Your task to perform on an android device: change the upload size in google photos Image 0: 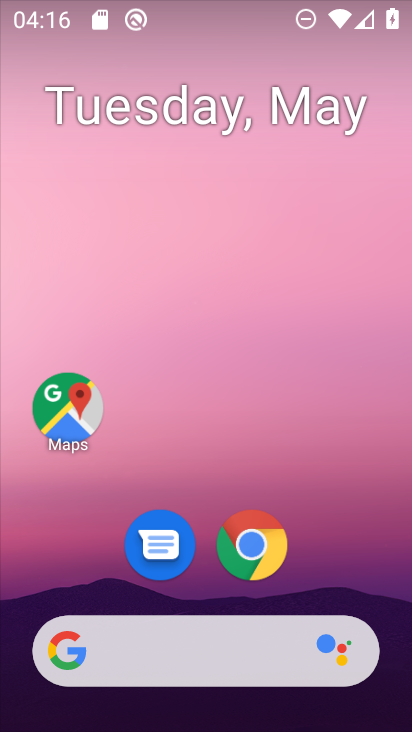
Step 0: drag from (380, 608) to (271, 20)
Your task to perform on an android device: change the upload size in google photos Image 1: 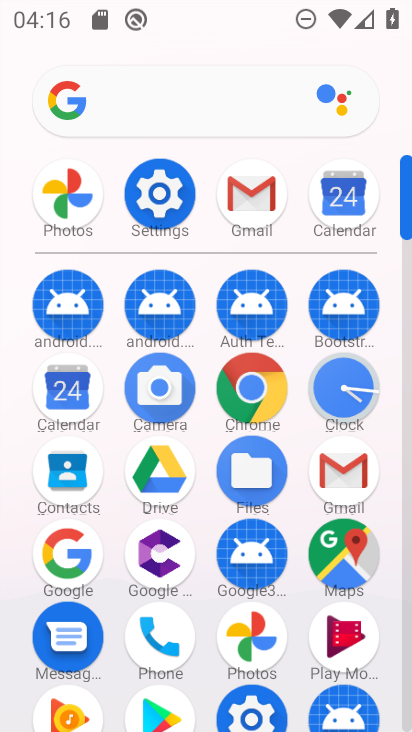
Step 1: click (404, 690)
Your task to perform on an android device: change the upload size in google photos Image 2: 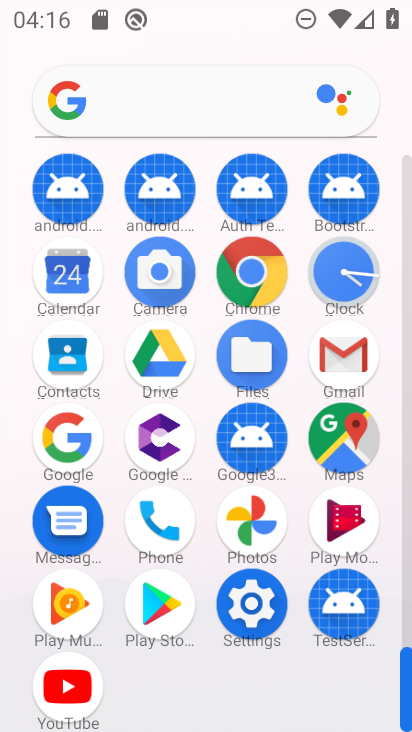
Step 2: click (251, 514)
Your task to perform on an android device: change the upload size in google photos Image 3: 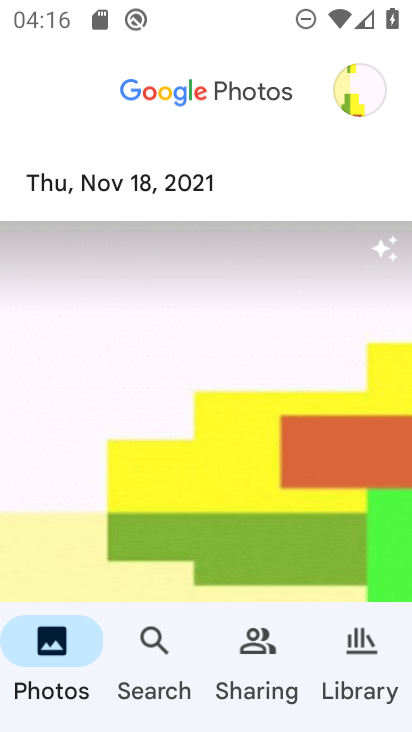
Step 3: click (362, 86)
Your task to perform on an android device: change the upload size in google photos Image 4: 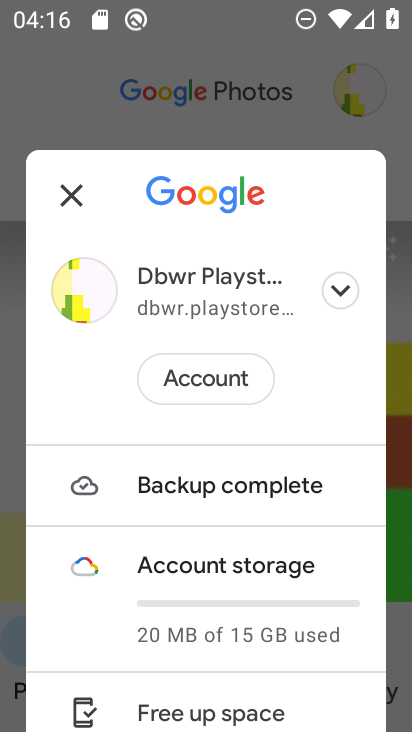
Step 4: drag from (275, 573) to (243, 164)
Your task to perform on an android device: change the upload size in google photos Image 5: 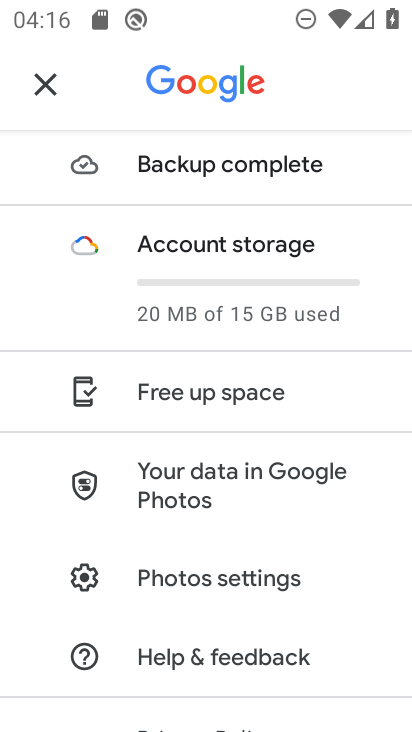
Step 5: click (176, 586)
Your task to perform on an android device: change the upload size in google photos Image 6: 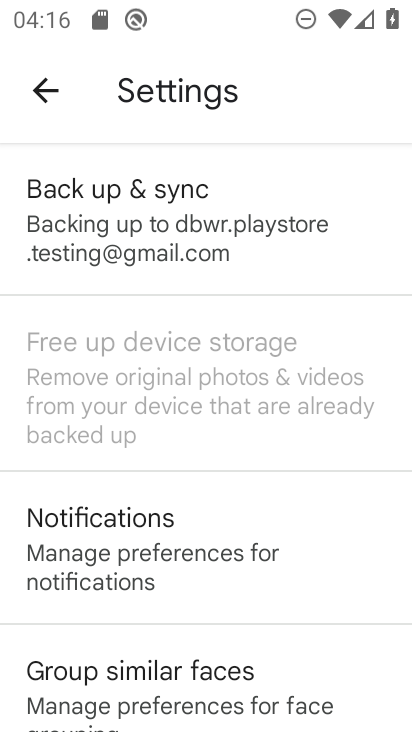
Step 6: click (133, 214)
Your task to perform on an android device: change the upload size in google photos Image 7: 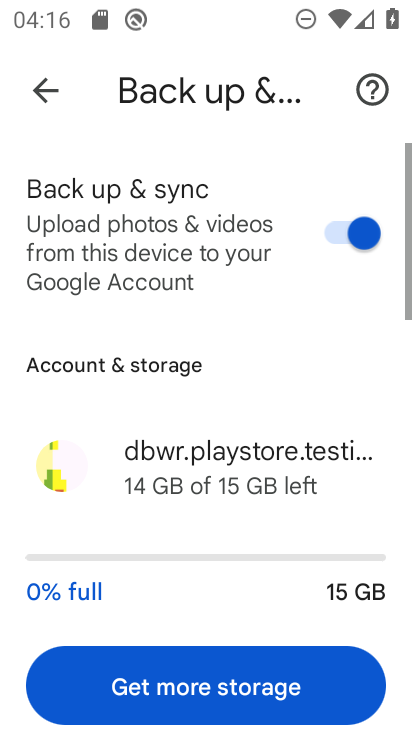
Step 7: drag from (192, 621) to (217, 93)
Your task to perform on an android device: change the upload size in google photos Image 8: 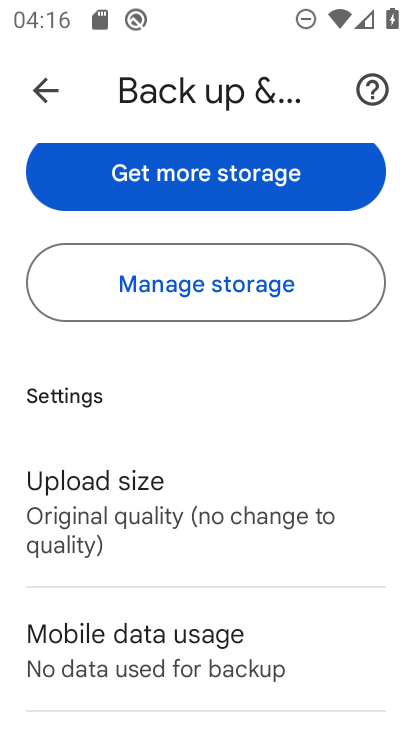
Step 8: click (96, 493)
Your task to perform on an android device: change the upload size in google photos Image 9: 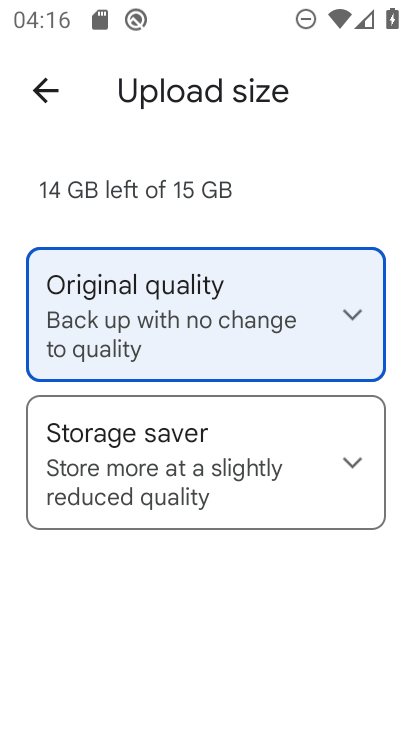
Step 9: click (133, 478)
Your task to perform on an android device: change the upload size in google photos Image 10: 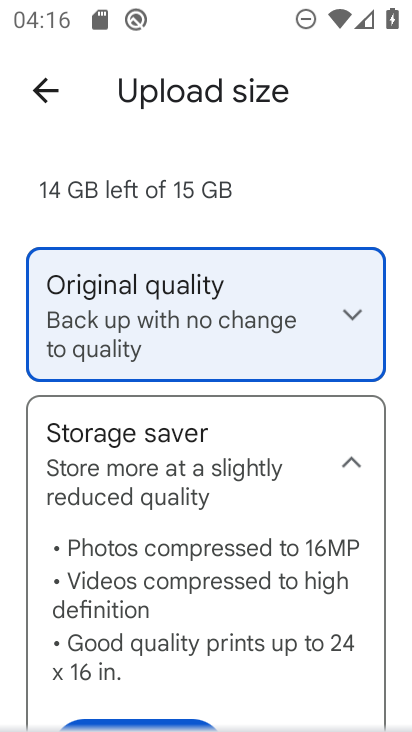
Step 10: drag from (129, 682) to (160, 305)
Your task to perform on an android device: change the upload size in google photos Image 11: 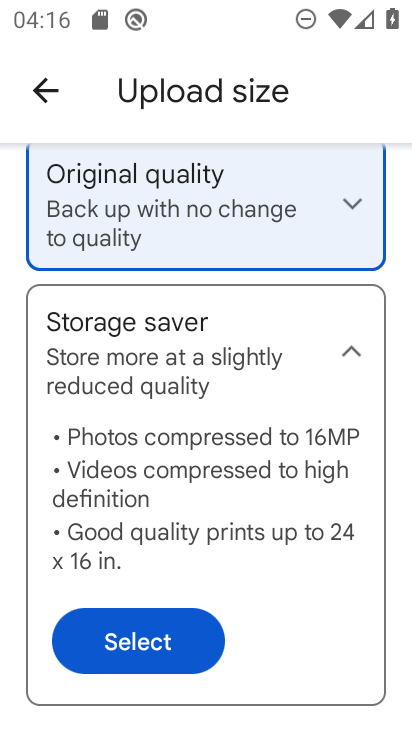
Step 11: click (126, 651)
Your task to perform on an android device: change the upload size in google photos Image 12: 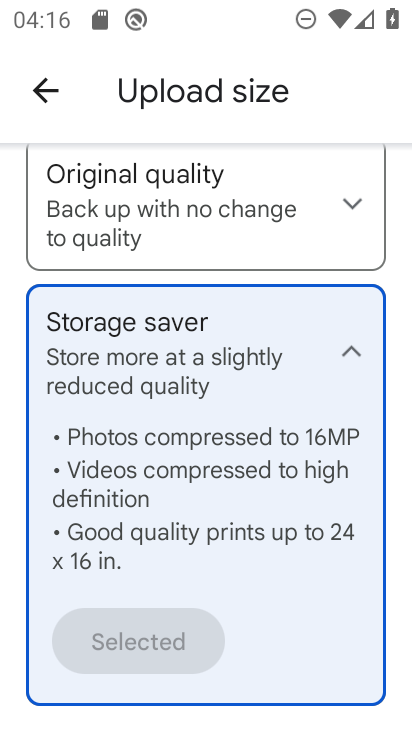
Step 12: task complete